Your task to perform on an android device: toggle notifications settings in the gmail app Image 0: 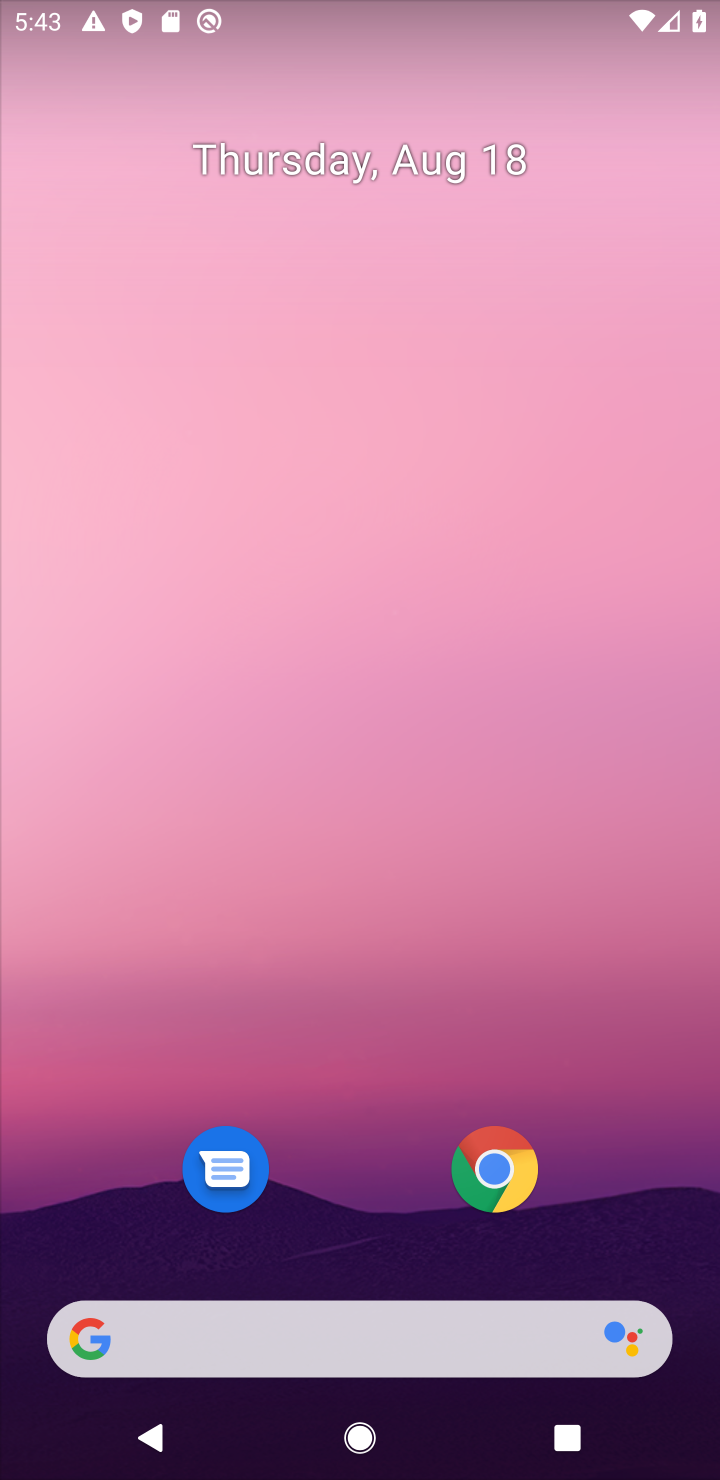
Step 0: drag from (380, 1106) to (394, 269)
Your task to perform on an android device: toggle notifications settings in the gmail app Image 1: 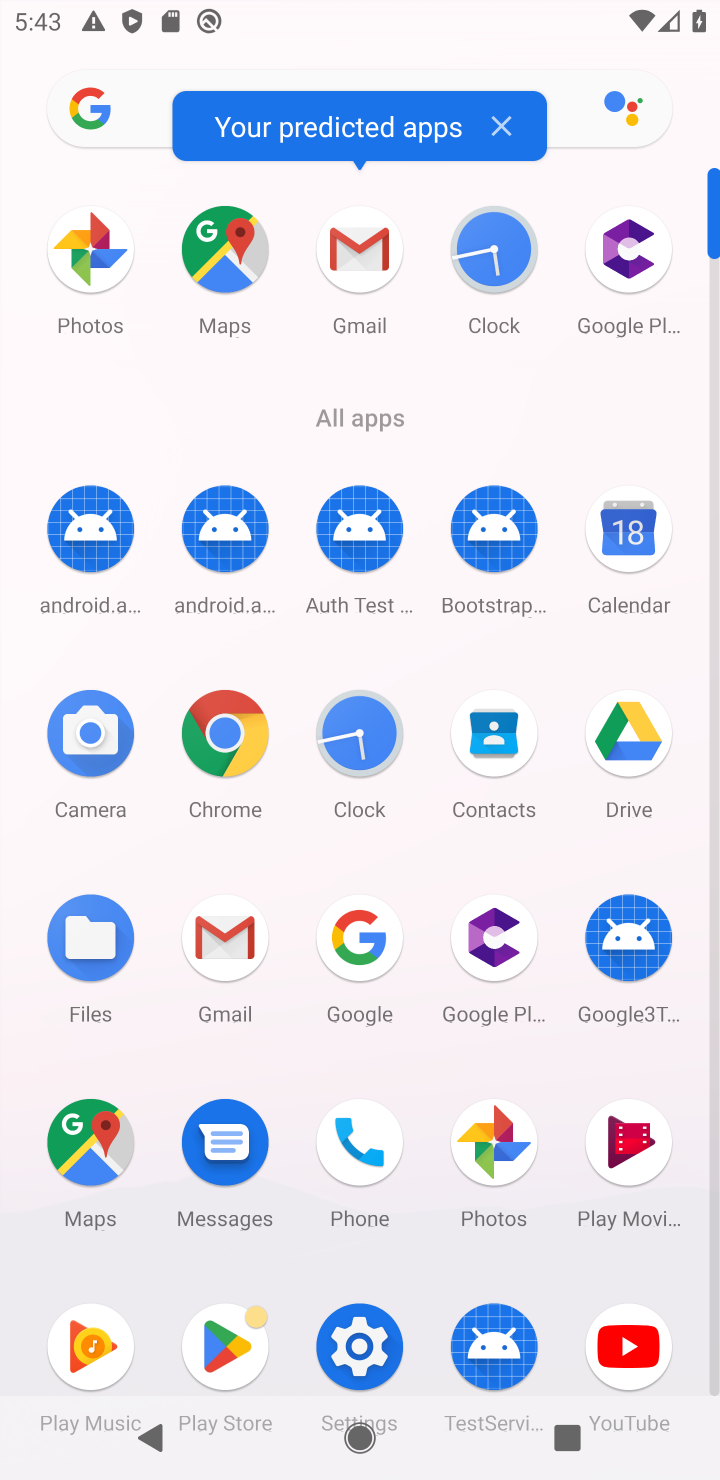
Step 1: click (368, 232)
Your task to perform on an android device: toggle notifications settings in the gmail app Image 2: 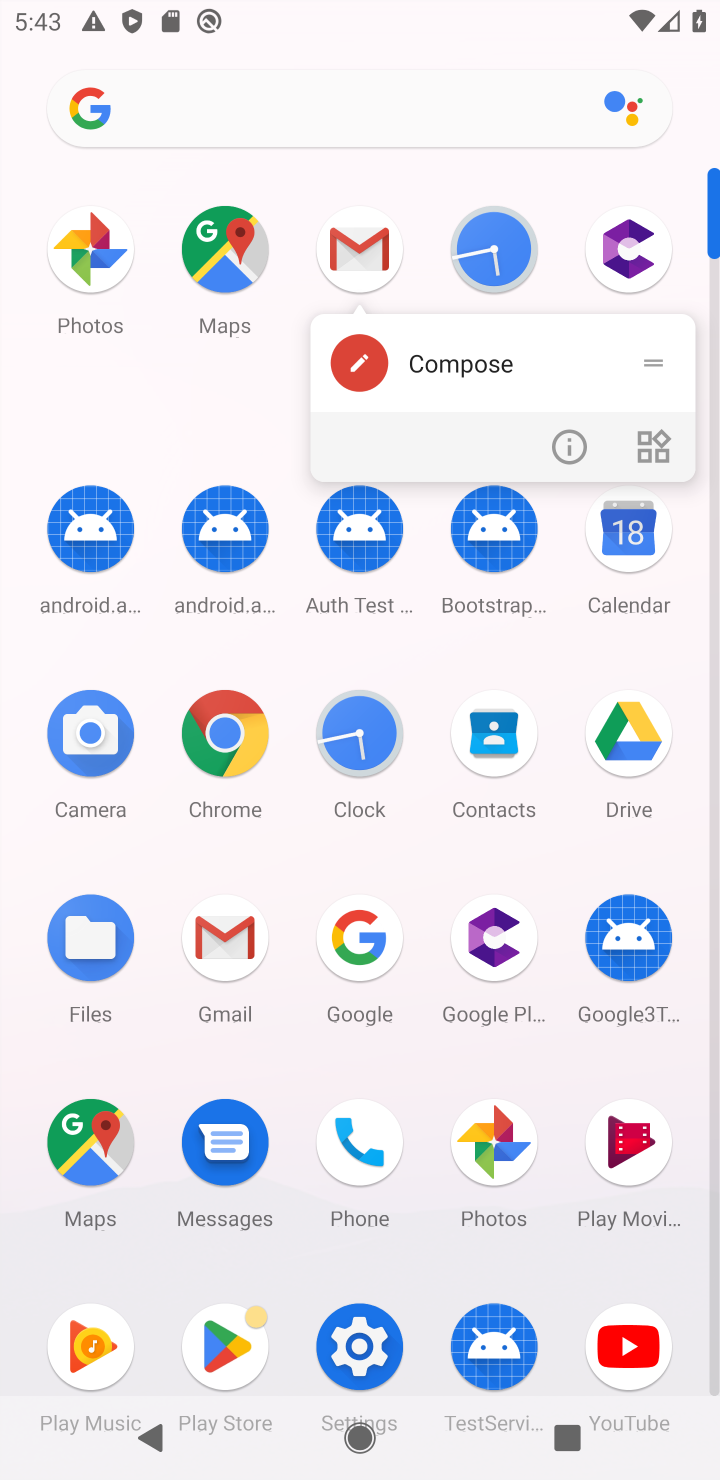
Step 2: click (360, 234)
Your task to perform on an android device: toggle notifications settings in the gmail app Image 3: 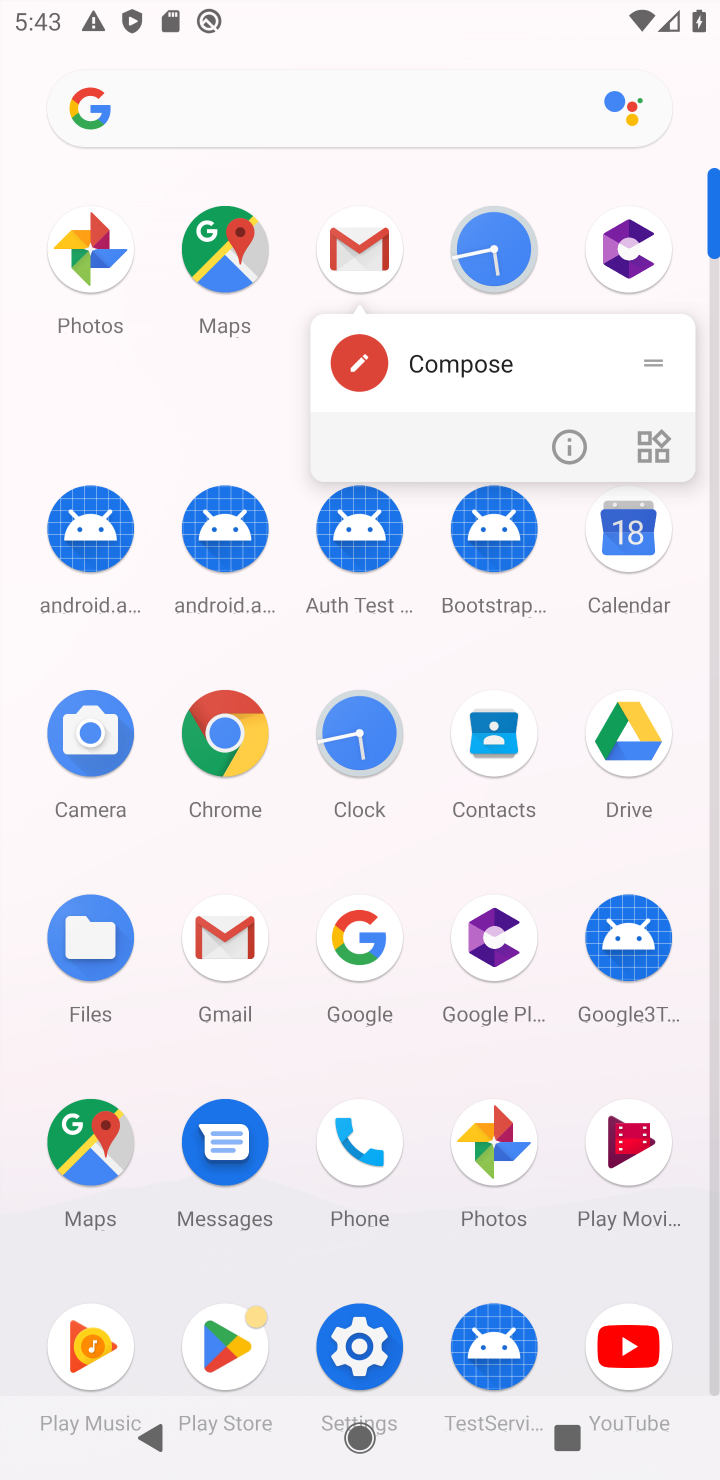
Step 3: click (360, 231)
Your task to perform on an android device: toggle notifications settings in the gmail app Image 4: 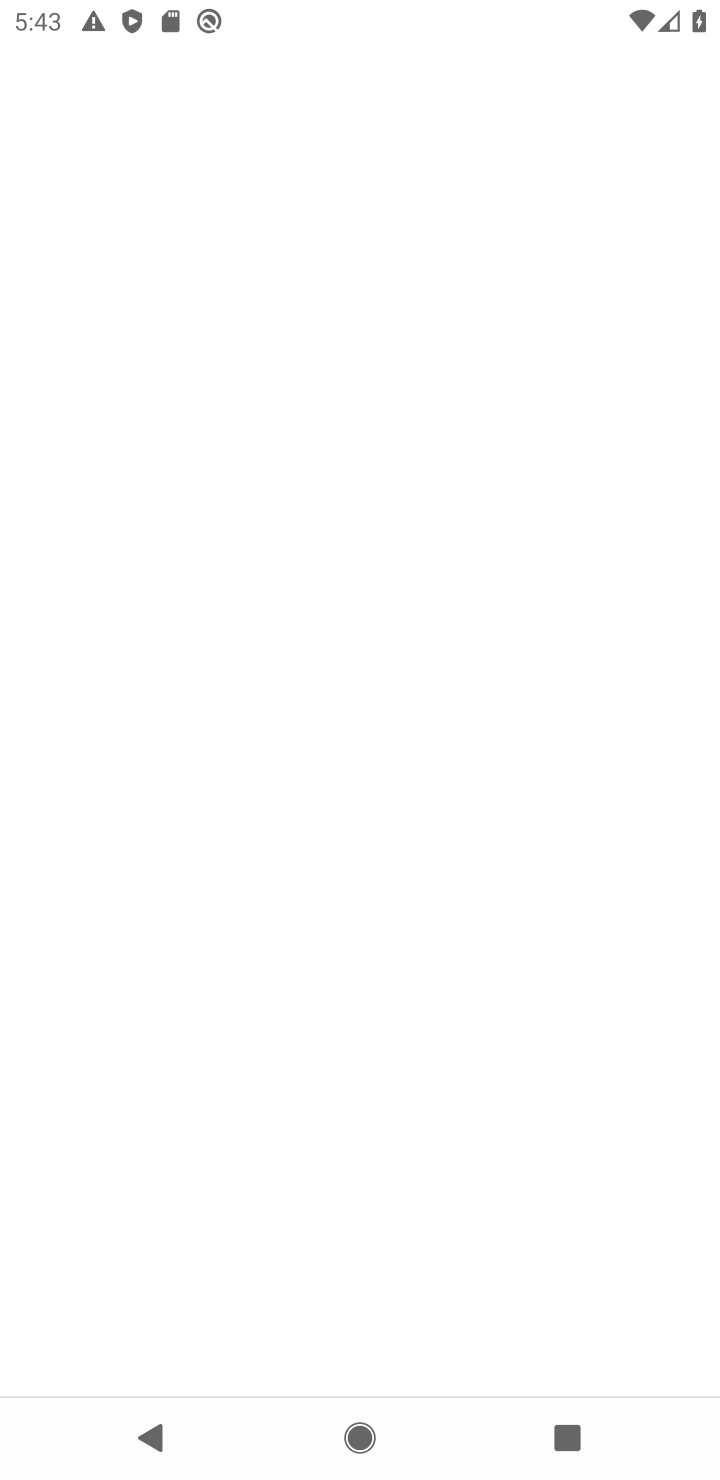
Step 4: click (368, 251)
Your task to perform on an android device: toggle notifications settings in the gmail app Image 5: 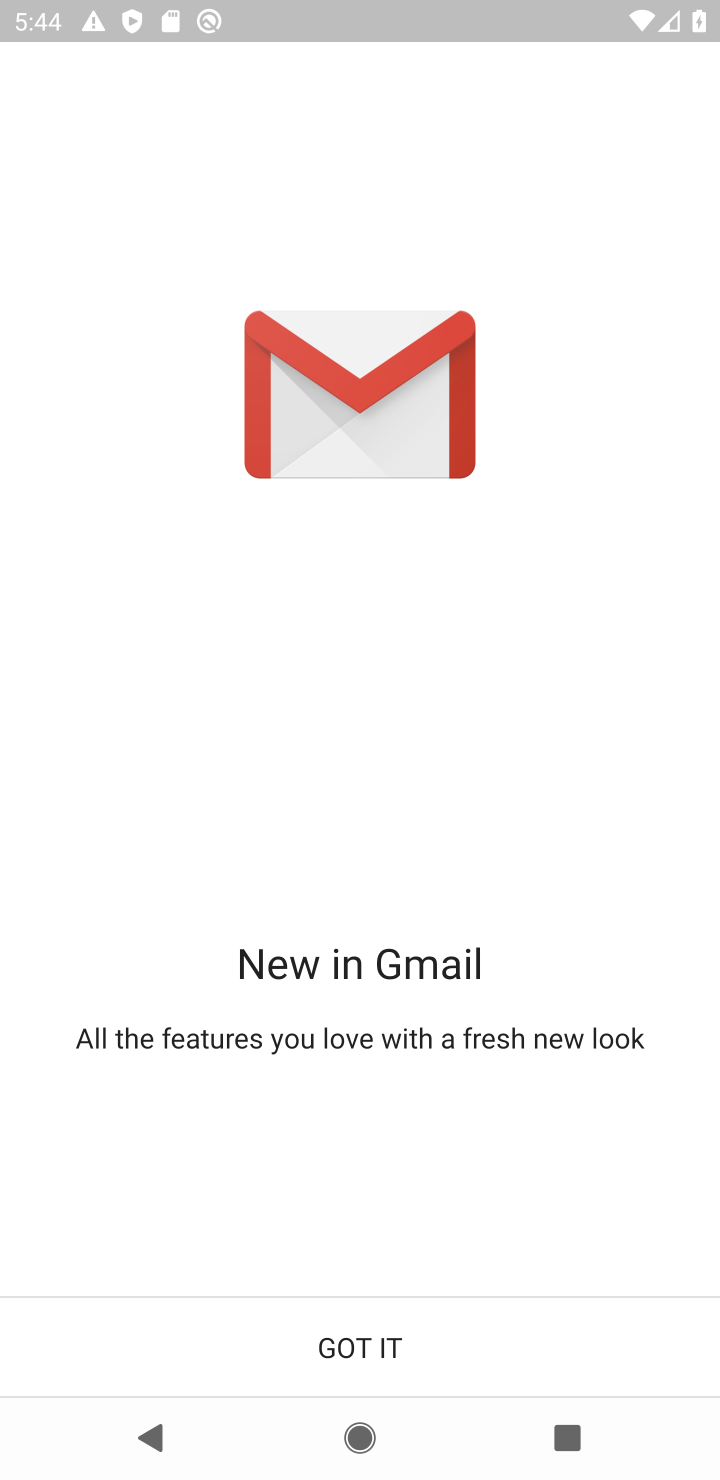
Step 5: click (363, 1359)
Your task to perform on an android device: toggle notifications settings in the gmail app Image 6: 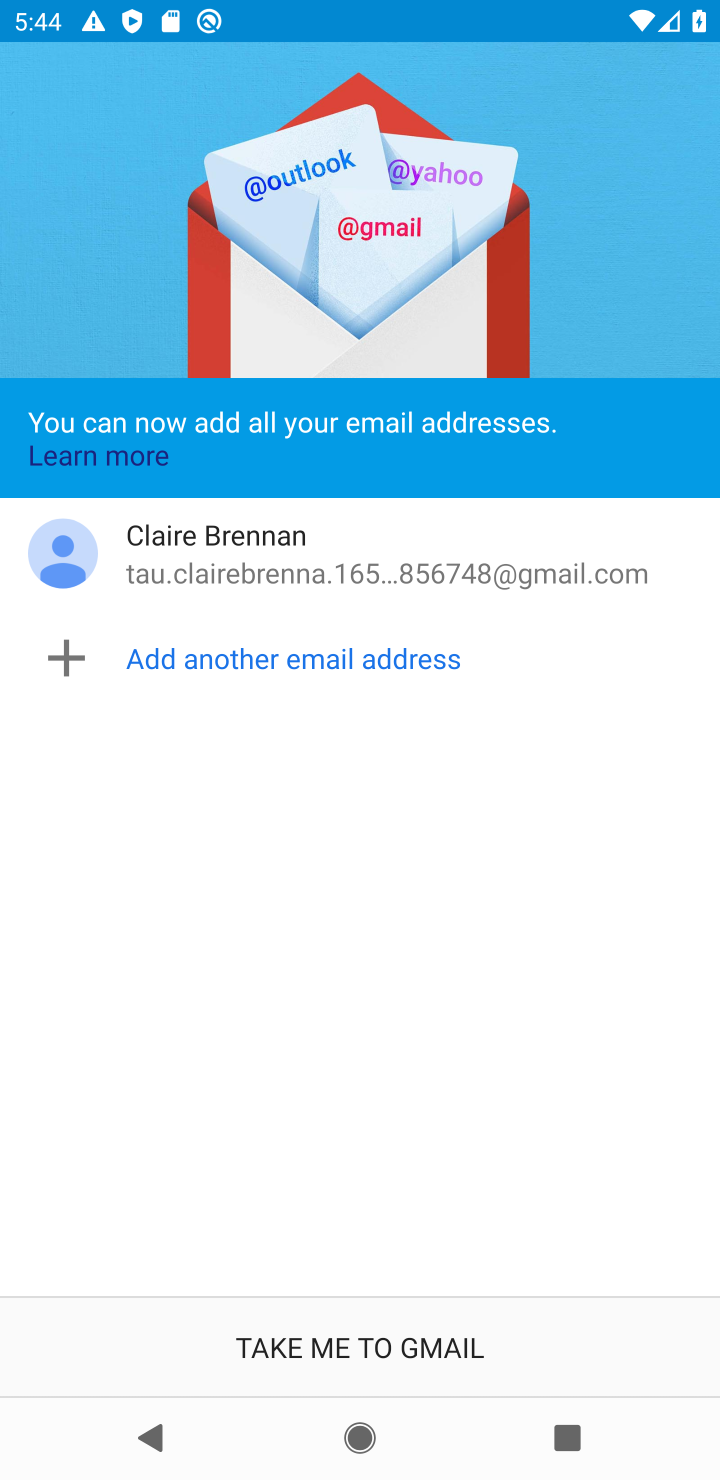
Step 6: click (375, 1341)
Your task to perform on an android device: toggle notifications settings in the gmail app Image 7: 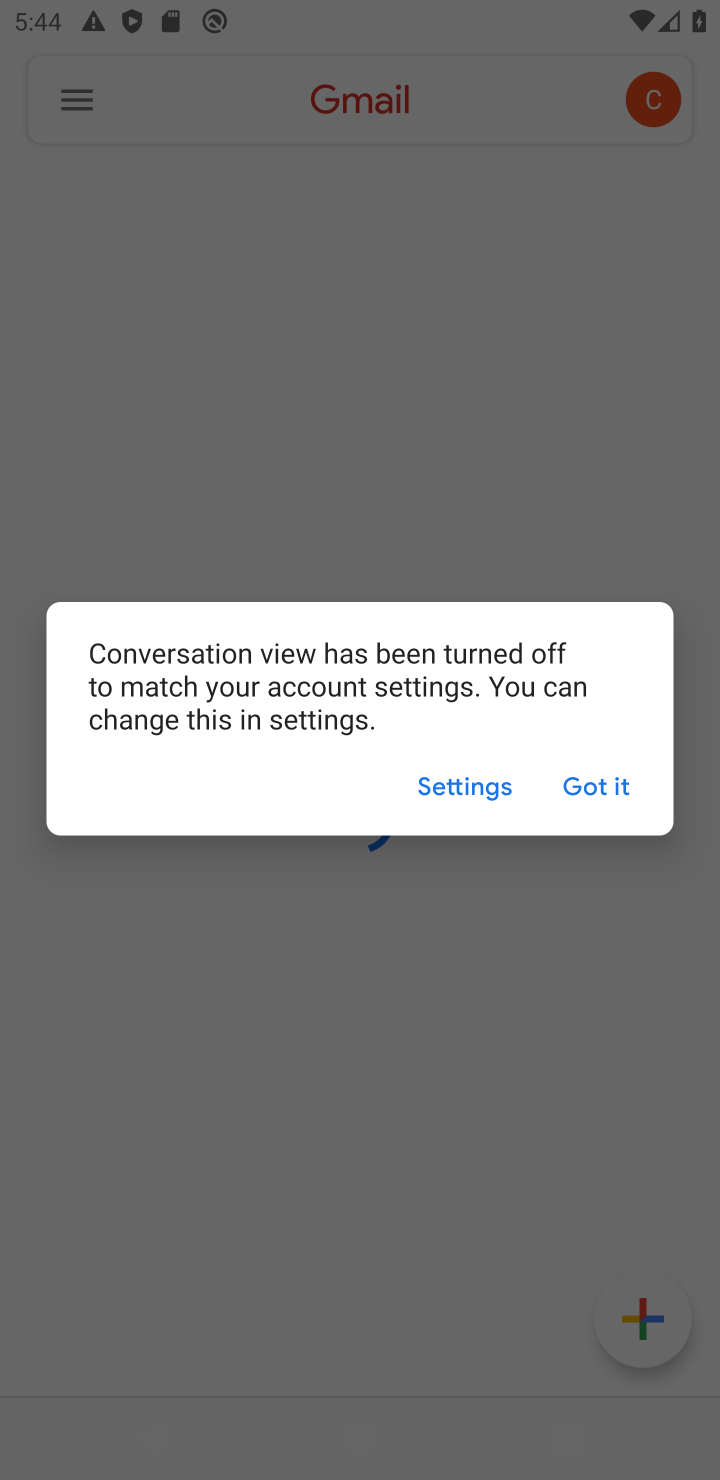
Step 7: click (626, 795)
Your task to perform on an android device: toggle notifications settings in the gmail app Image 8: 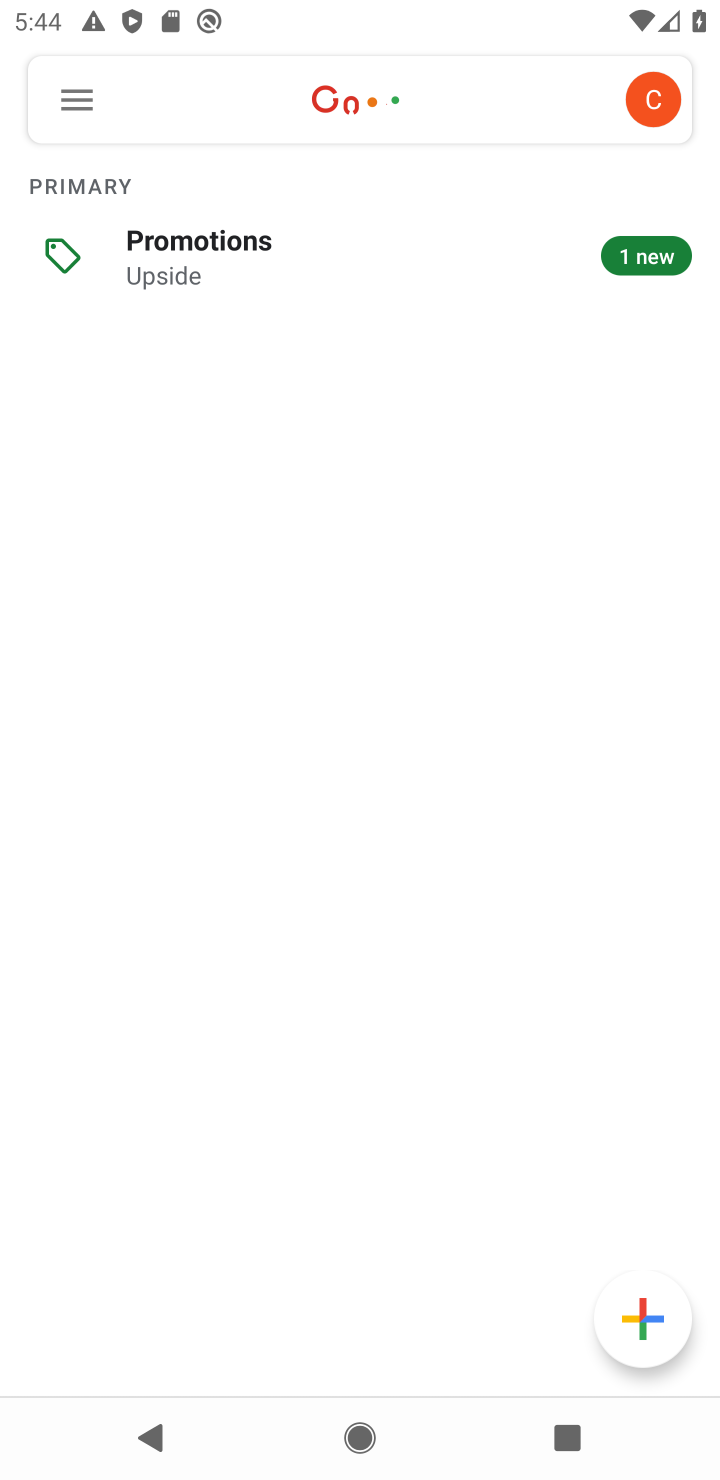
Step 8: click (64, 101)
Your task to perform on an android device: toggle notifications settings in the gmail app Image 9: 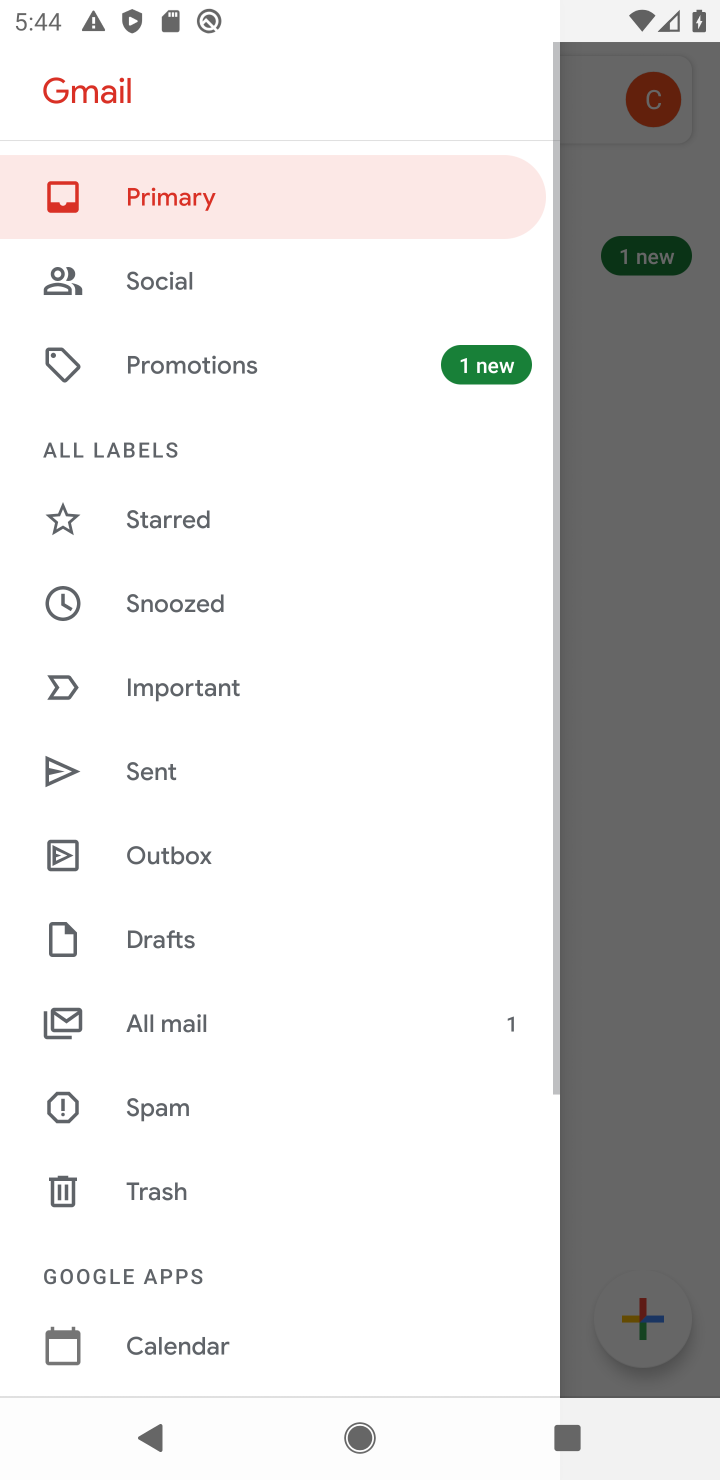
Step 9: drag from (390, 1232) to (389, 270)
Your task to perform on an android device: toggle notifications settings in the gmail app Image 10: 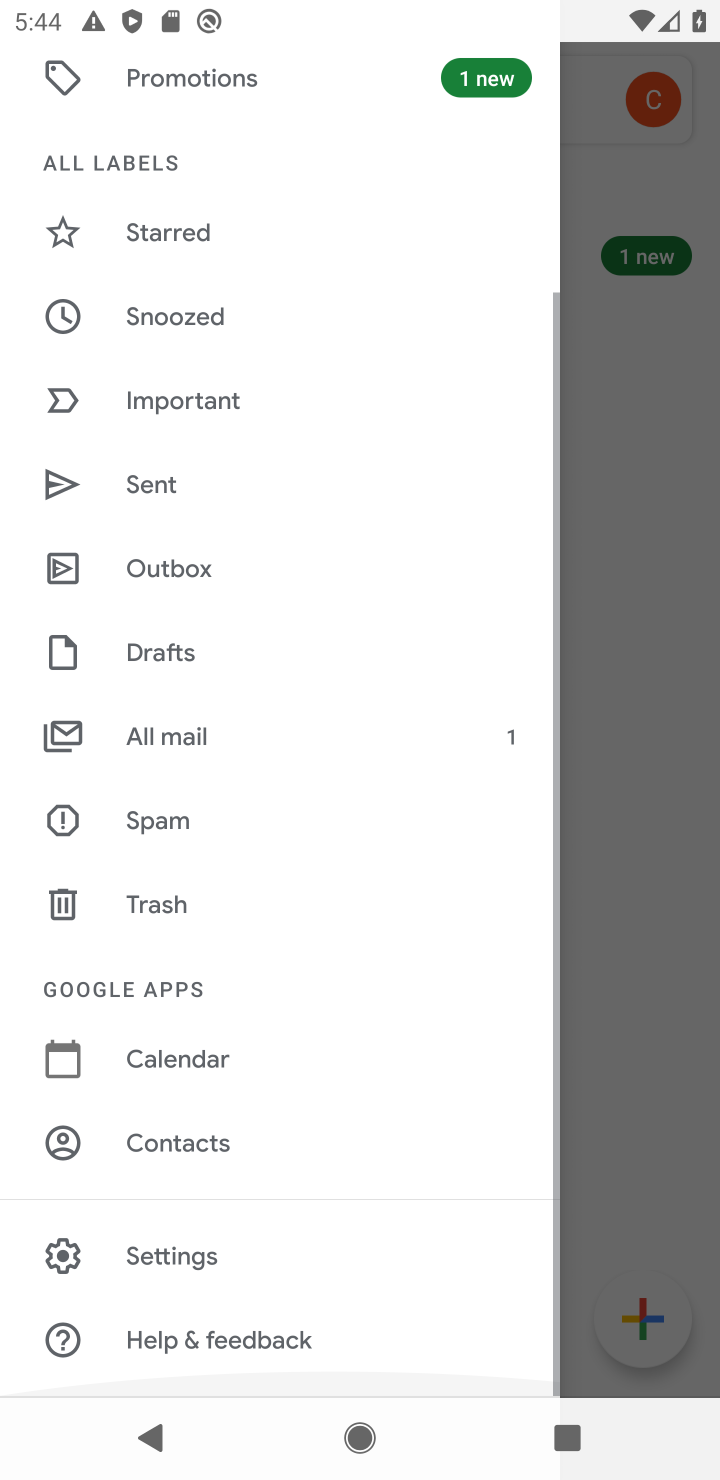
Step 10: click (134, 1264)
Your task to perform on an android device: toggle notifications settings in the gmail app Image 11: 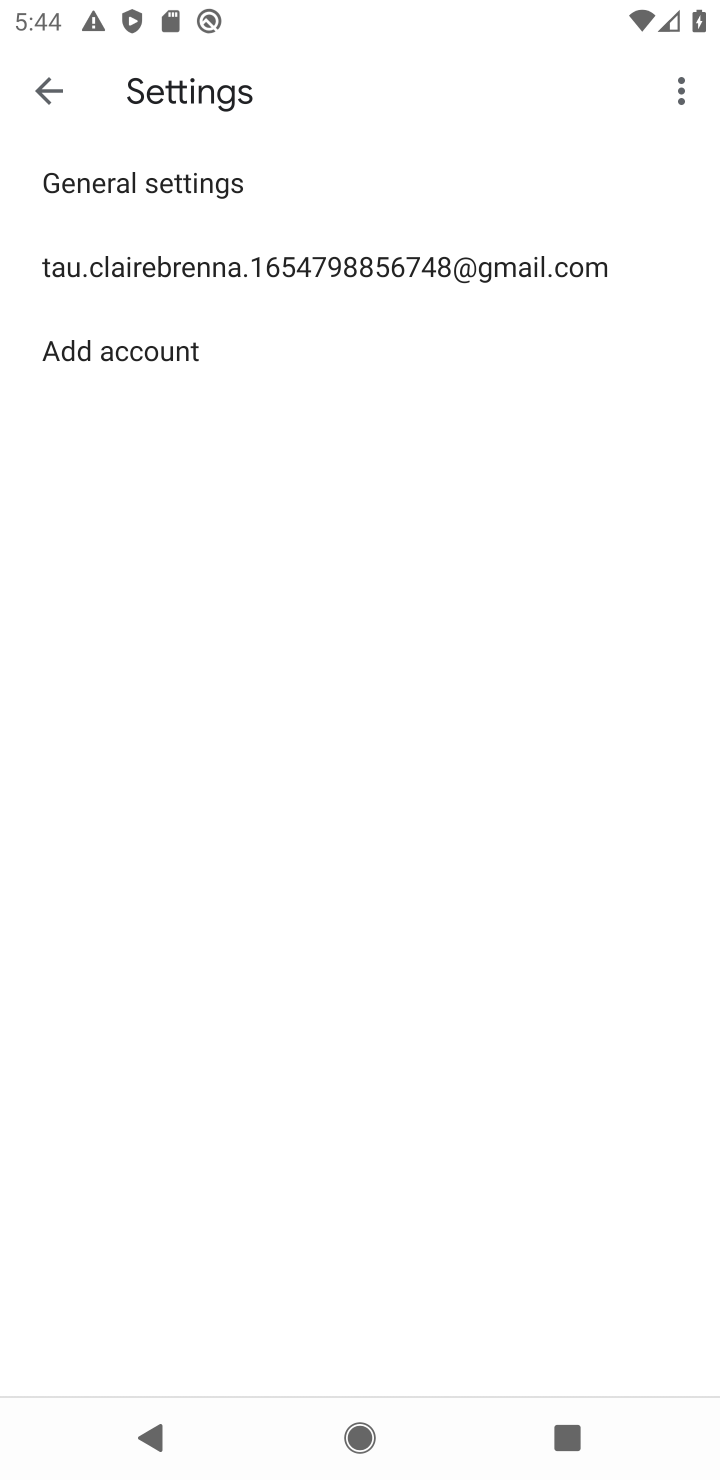
Step 11: click (360, 267)
Your task to perform on an android device: toggle notifications settings in the gmail app Image 12: 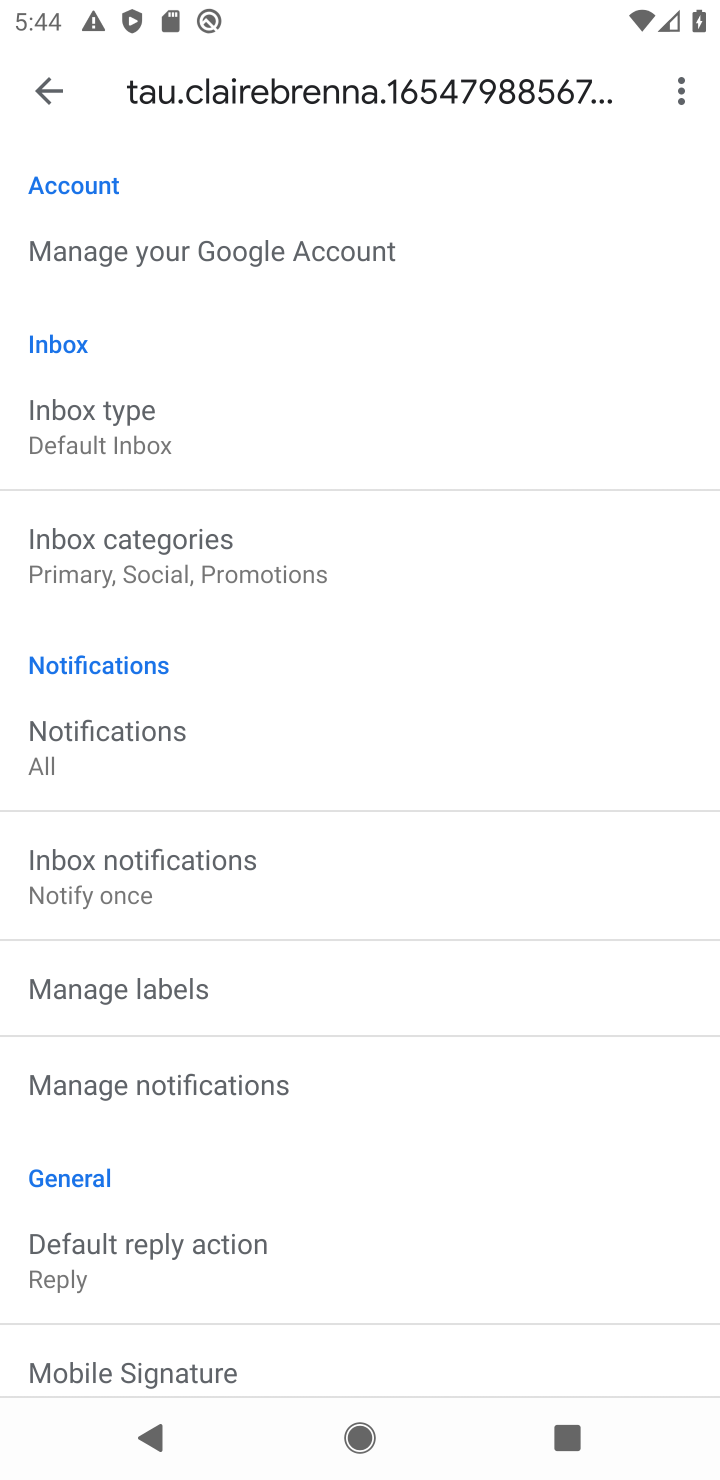
Step 12: click (186, 1082)
Your task to perform on an android device: toggle notifications settings in the gmail app Image 13: 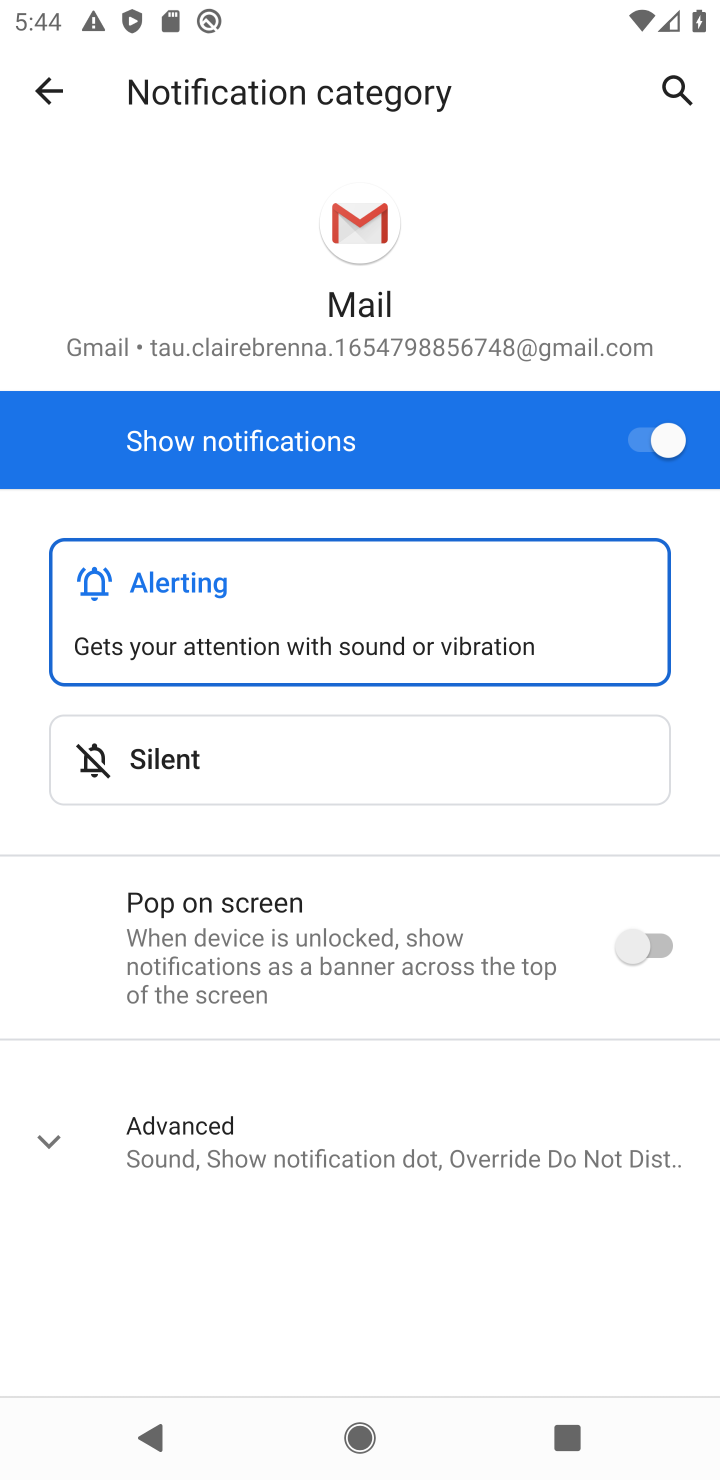
Step 13: click (669, 435)
Your task to perform on an android device: toggle notifications settings in the gmail app Image 14: 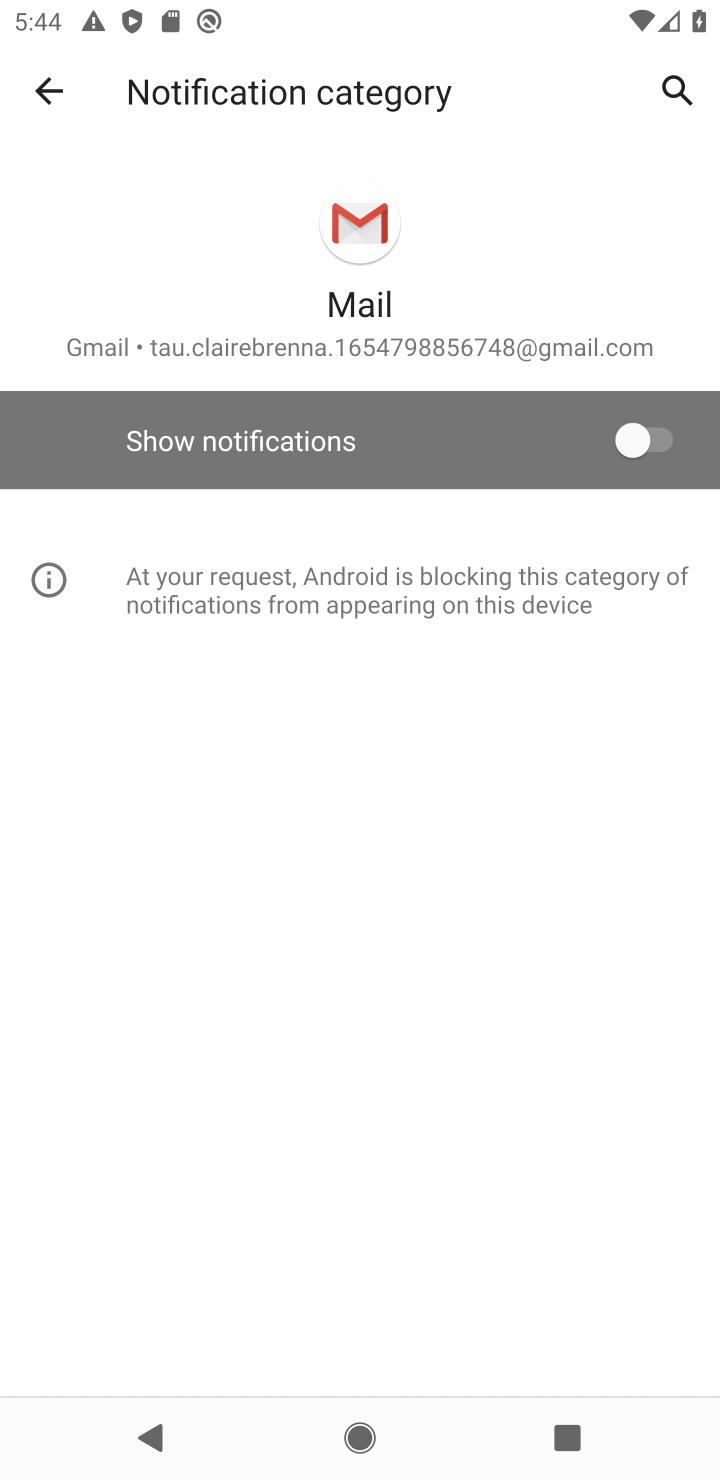
Step 14: task complete